Your task to perform on an android device: create a new album in the google photos Image 0: 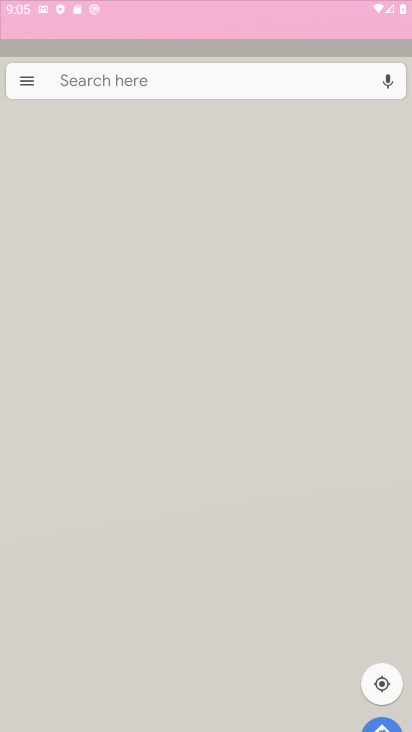
Step 0: click (241, 108)
Your task to perform on an android device: create a new album in the google photos Image 1: 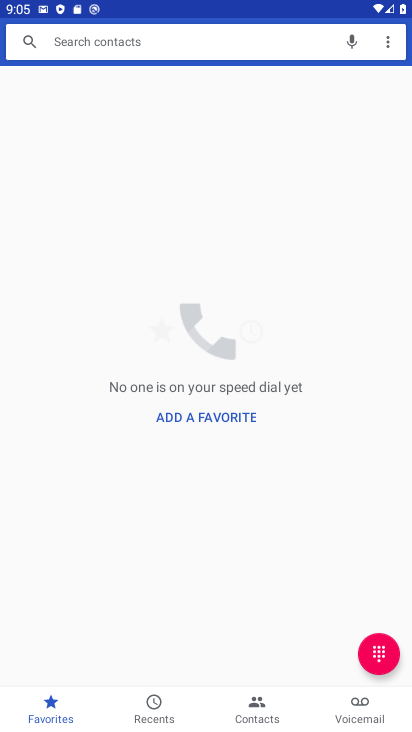
Step 1: press home button
Your task to perform on an android device: create a new album in the google photos Image 2: 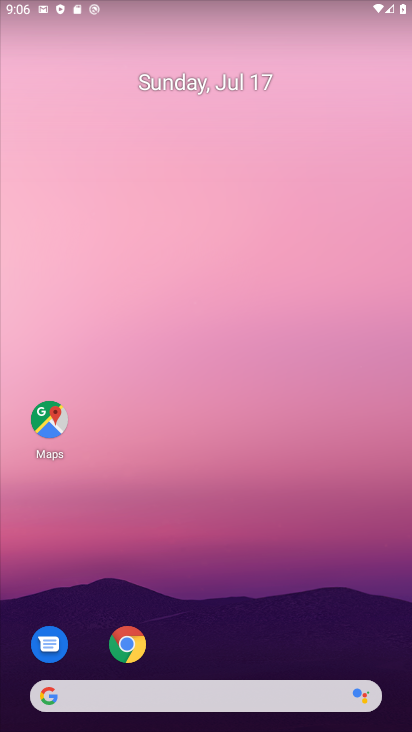
Step 2: drag from (216, 663) to (176, 116)
Your task to perform on an android device: create a new album in the google photos Image 3: 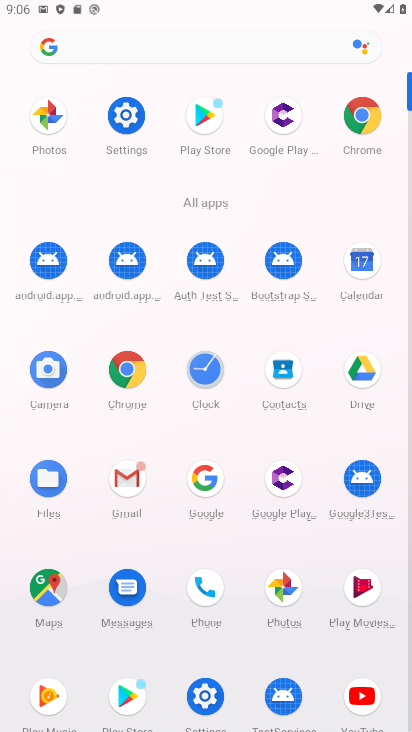
Step 3: click (291, 585)
Your task to perform on an android device: create a new album in the google photos Image 4: 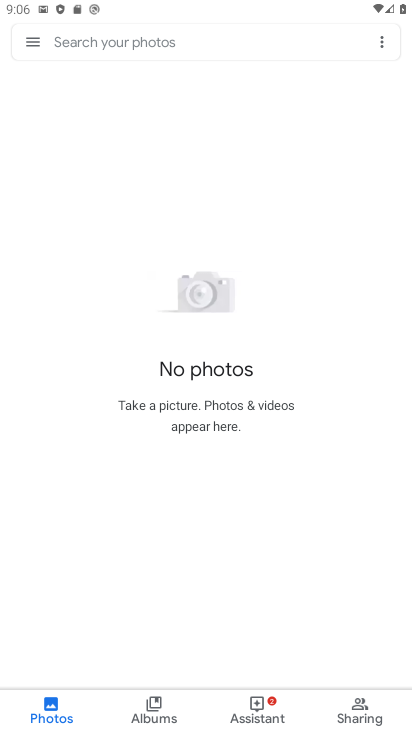
Step 4: drag from (185, 172) to (233, 562)
Your task to perform on an android device: create a new album in the google photos Image 5: 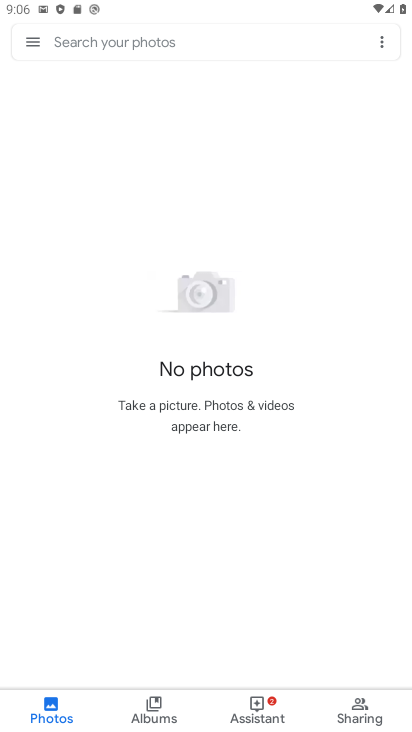
Step 5: click (123, 729)
Your task to perform on an android device: create a new album in the google photos Image 6: 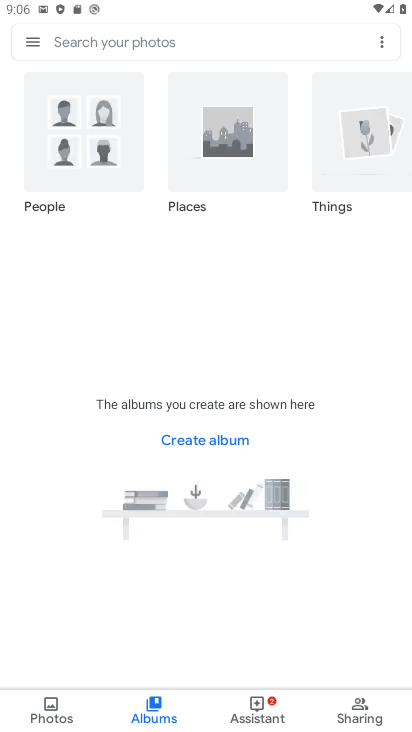
Step 6: click (204, 437)
Your task to perform on an android device: create a new album in the google photos Image 7: 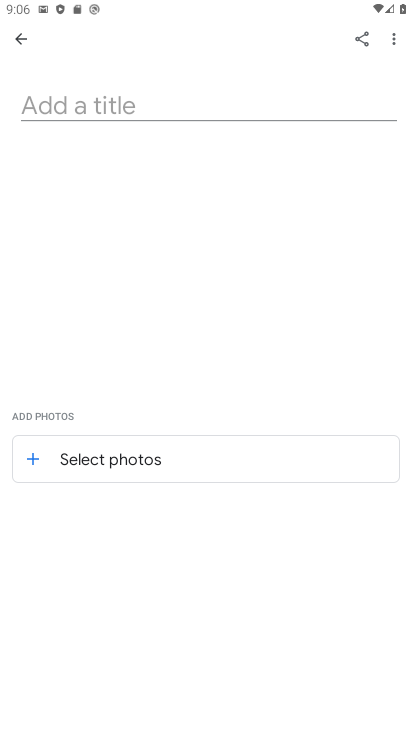
Step 7: click (92, 461)
Your task to perform on an android device: create a new album in the google photos Image 8: 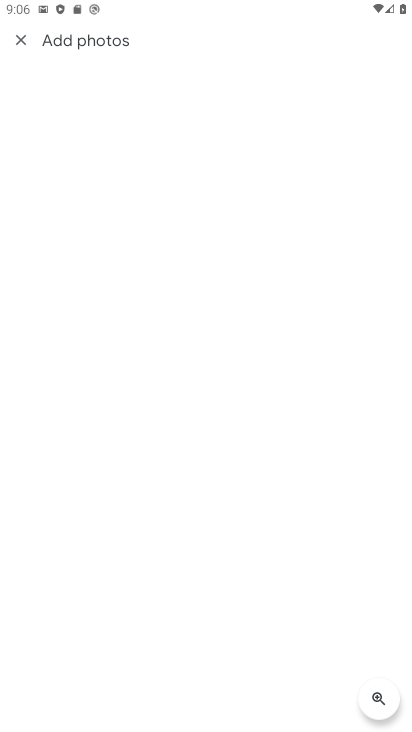
Step 8: task complete